Your task to perform on an android device: Open Google Image 0: 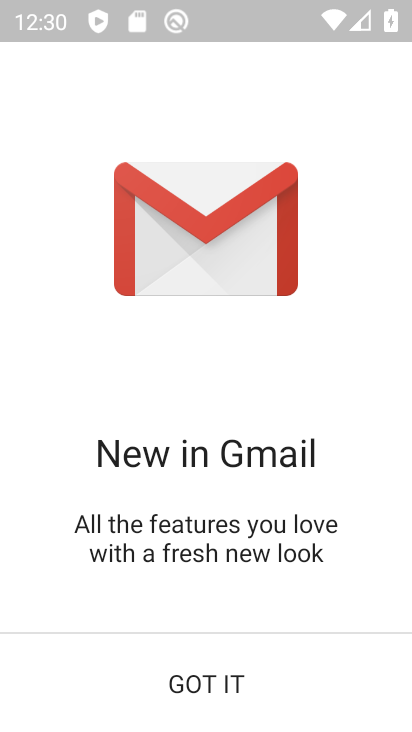
Step 0: press home button
Your task to perform on an android device: Open Google Image 1: 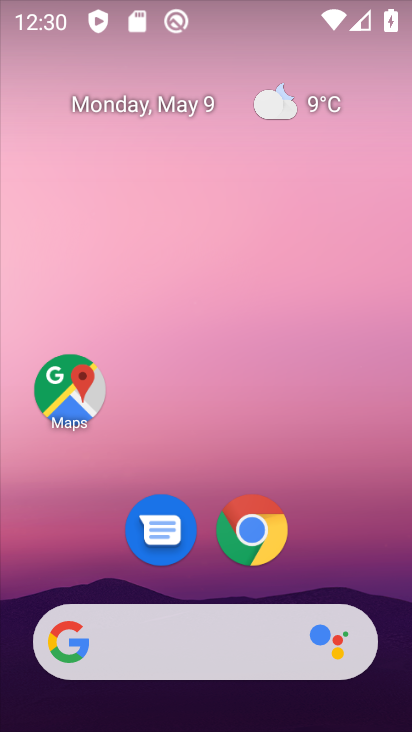
Step 1: drag from (283, 567) to (339, 154)
Your task to perform on an android device: Open Google Image 2: 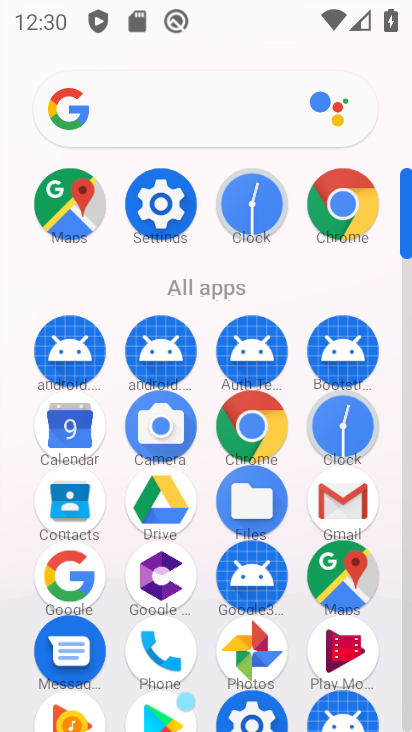
Step 2: click (85, 572)
Your task to perform on an android device: Open Google Image 3: 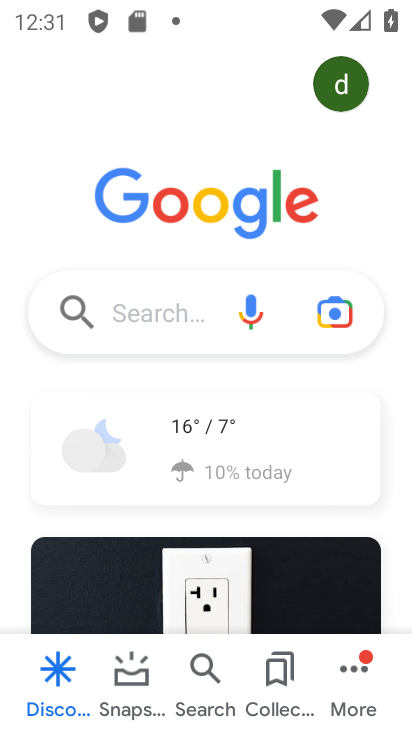
Step 3: task complete